Your task to perform on an android device: Add corsair k70 to the cart on bestbuy.com Image 0: 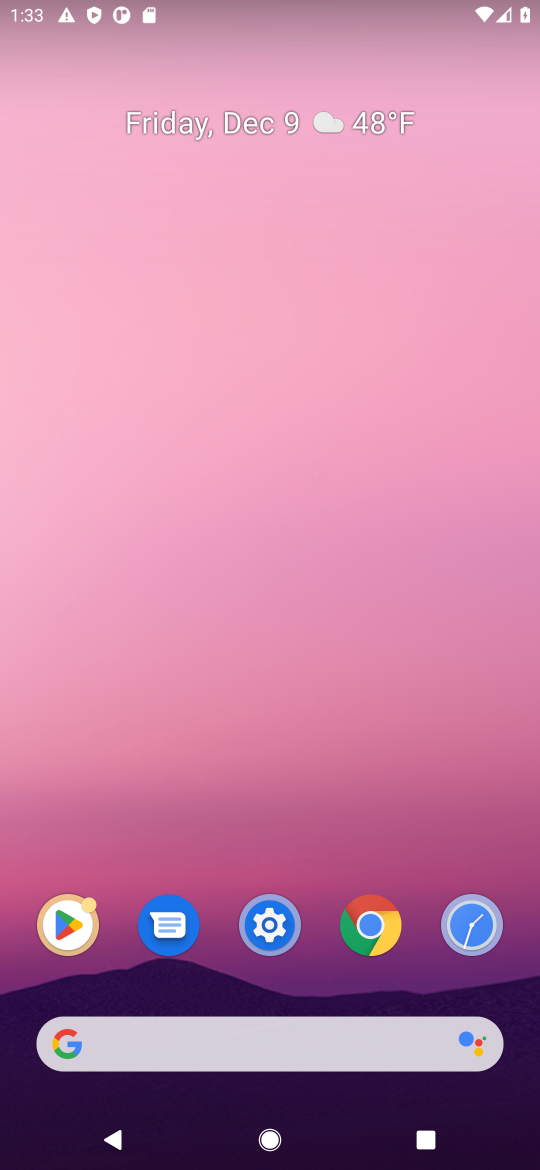
Step 0: click (276, 1037)
Your task to perform on an android device: Add corsair k70 to the cart on bestbuy.com Image 1: 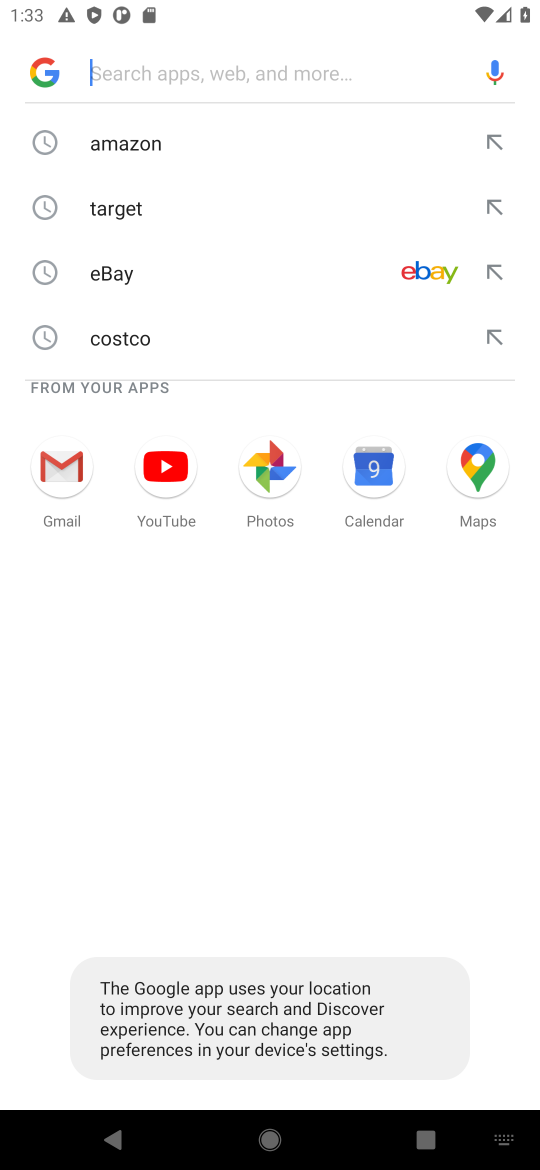
Step 1: type "bestbuy"
Your task to perform on an android device: Add corsair k70 to the cart on bestbuy.com Image 2: 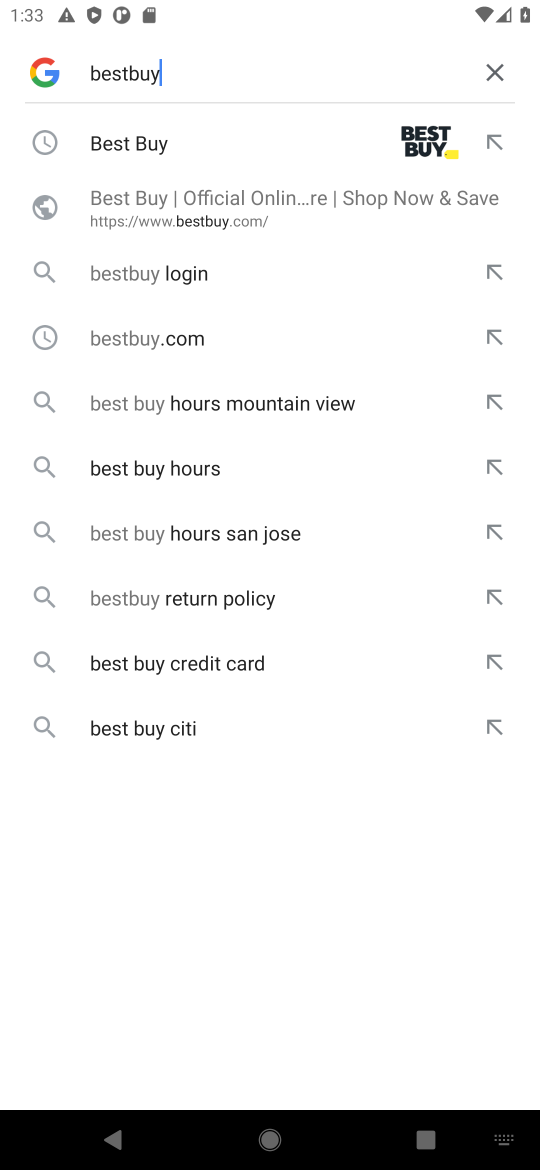
Step 2: click (177, 160)
Your task to perform on an android device: Add corsair k70 to the cart on bestbuy.com Image 3: 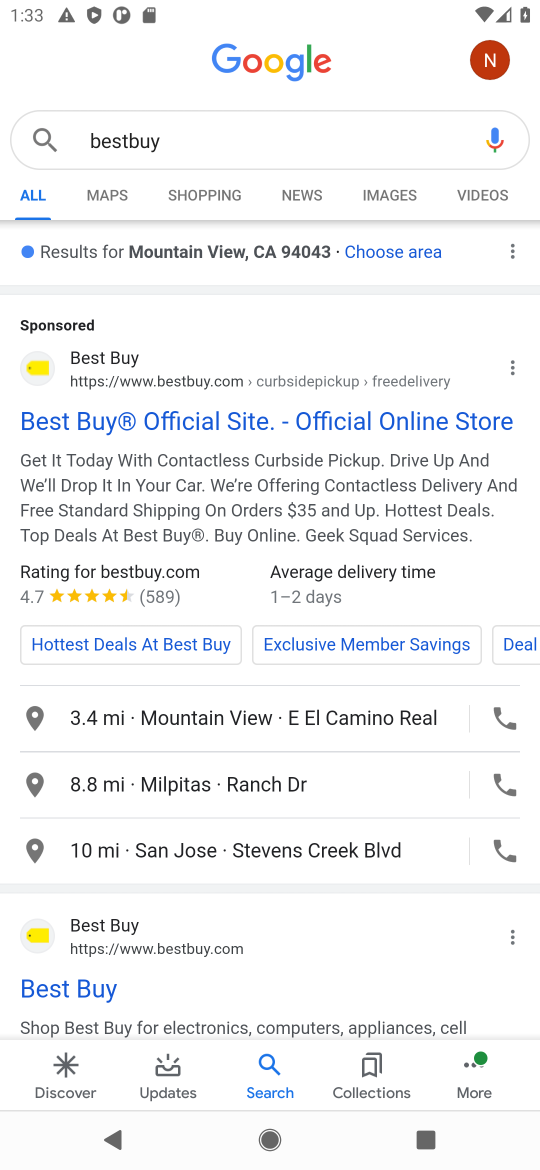
Step 3: click (157, 441)
Your task to perform on an android device: Add corsair k70 to the cart on bestbuy.com Image 4: 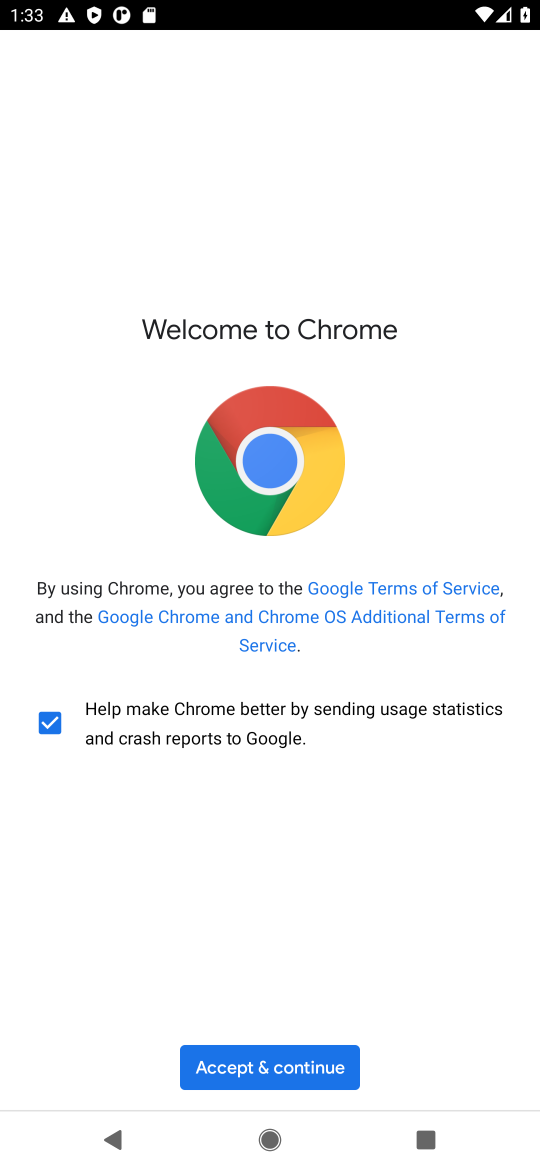
Step 4: click (266, 1039)
Your task to perform on an android device: Add corsair k70 to the cart on bestbuy.com Image 5: 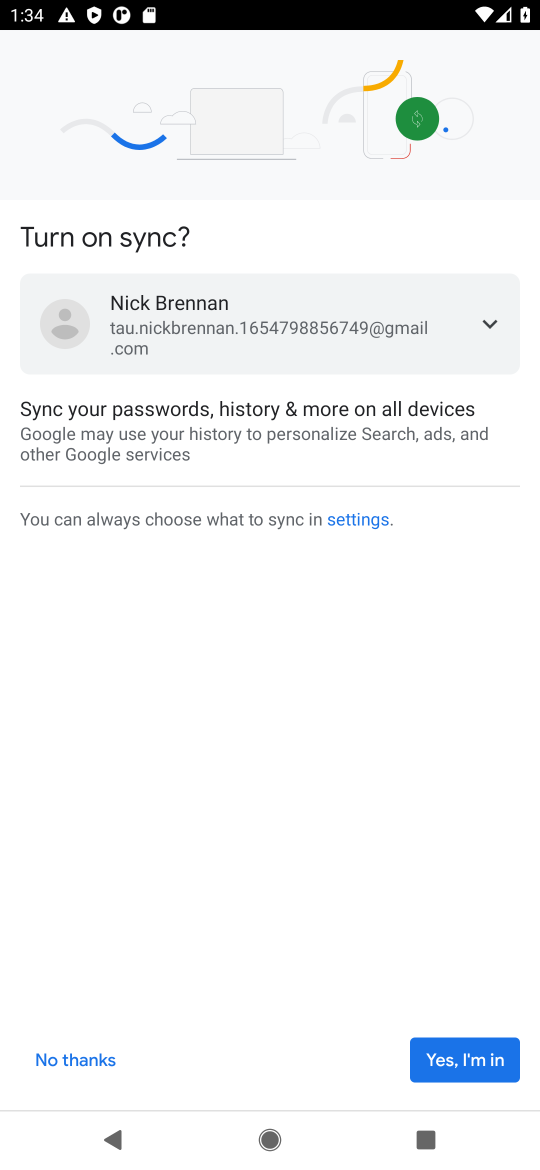
Step 5: click (428, 1060)
Your task to perform on an android device: Add corsair k70 to the cart on bestbuy.com Image 6: 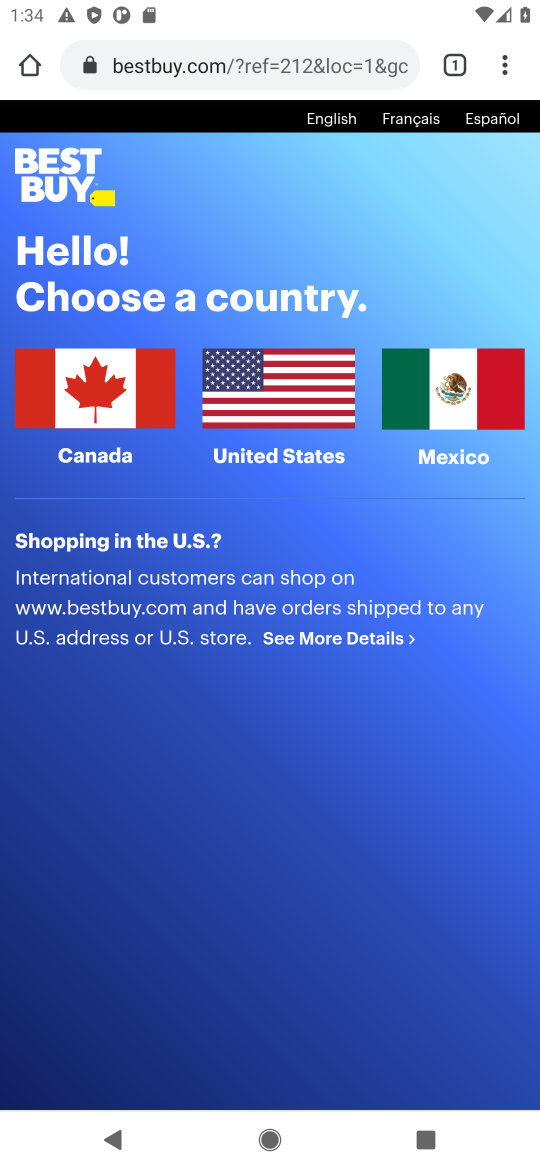
Step 6: click (75, 432)
Your task to perform on an android device: Add corsair k70 to the cart on bestbuy.com Image 7: 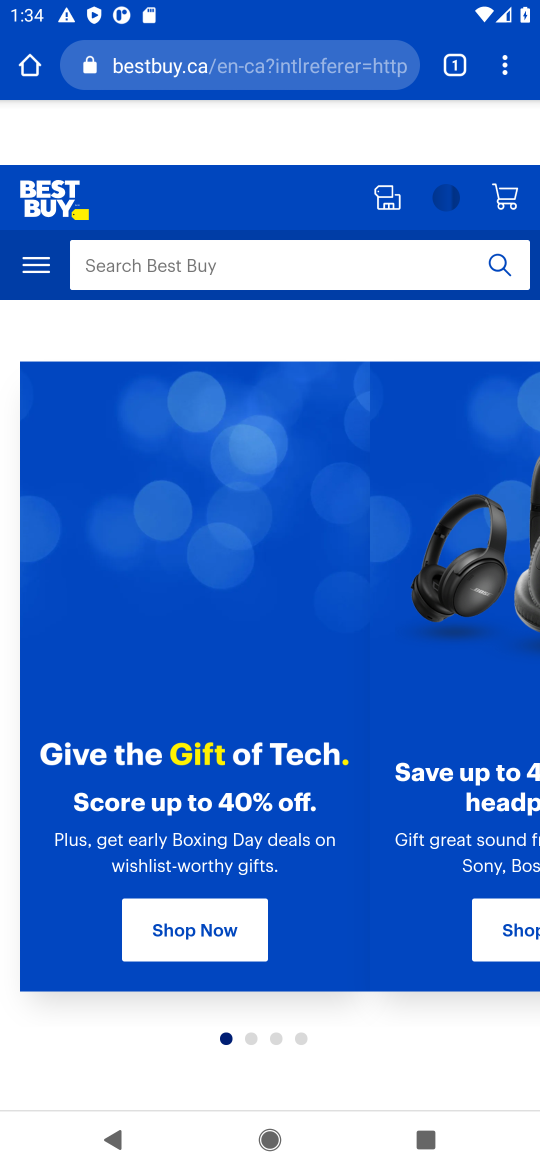
Step 7: click (172, 271)
Your task to perform on an android device: Add corsair k70 to the cart on bestbuy.com Image 8: 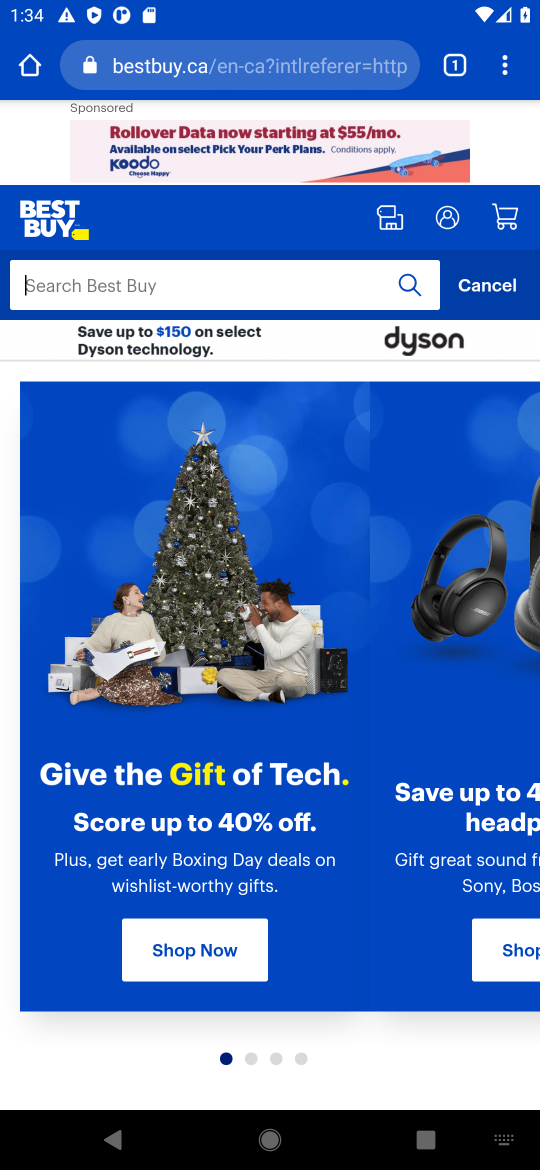
Step 8: type "corsair k70"
Your task to perform on an android device: Add corsair k70 to the cart on bestbuy.com Image 9: 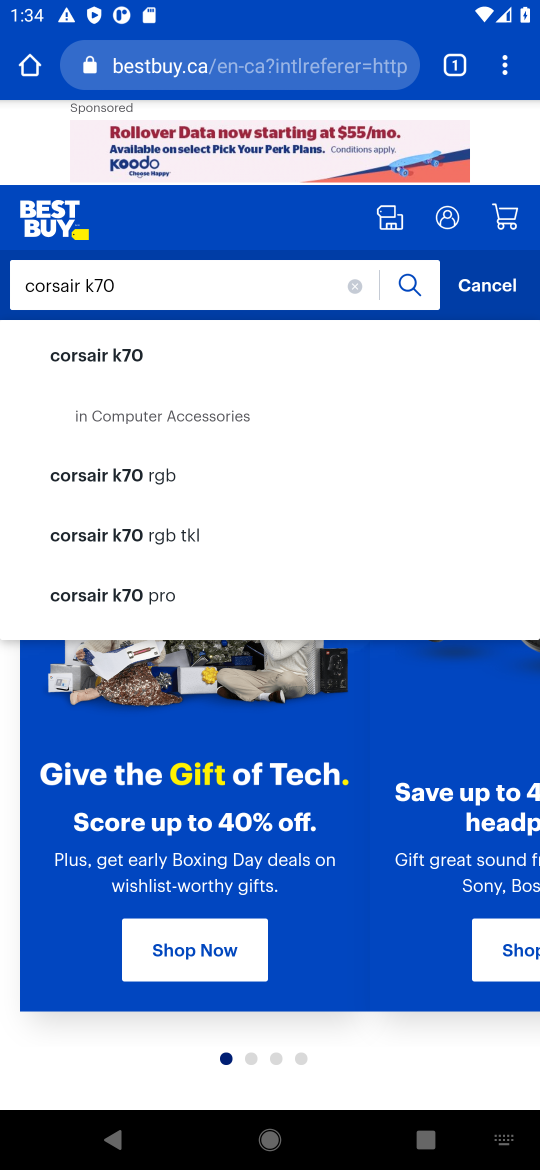
Step 9: click (143, 362)
Your task to perform on an android device: Add corsair k70 to the cart on bestbuy.com Image 10: 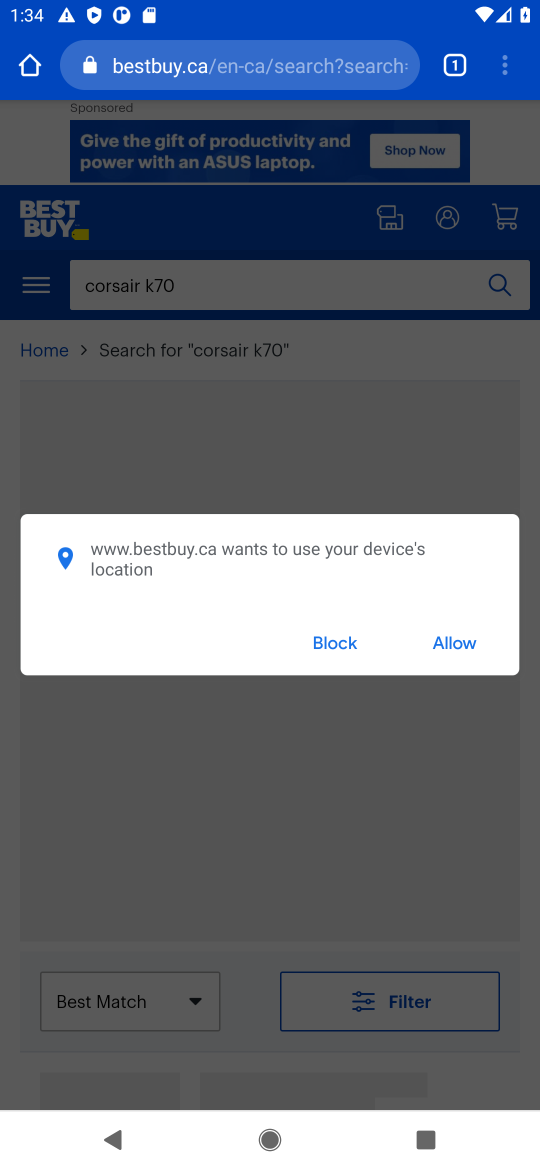
Step 10: click (302, 653)
Your task to perform on an android device: Add corsair k70 to the cart on bestbuy.com Image 11: 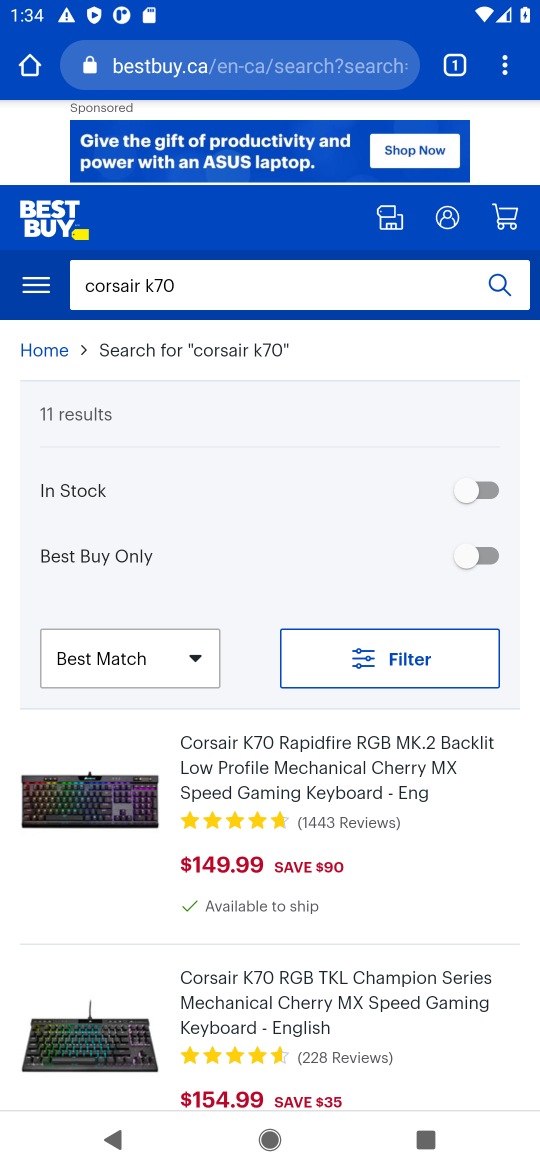
Step 11: click (265, 759)
Your task to perform on an android device: Add corsair k70 to the cart on bestbuy.com Image 12: 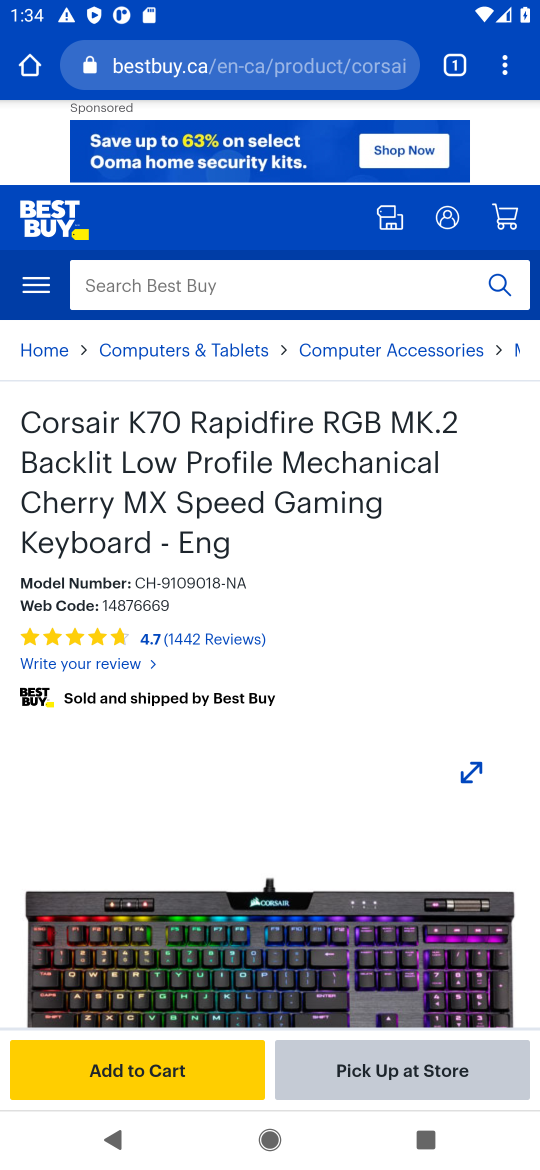
Step 12: click (156, 1068)
Your task to perform on an android device: Add corsair k70 to the cart on bestbuy.com Image 13: 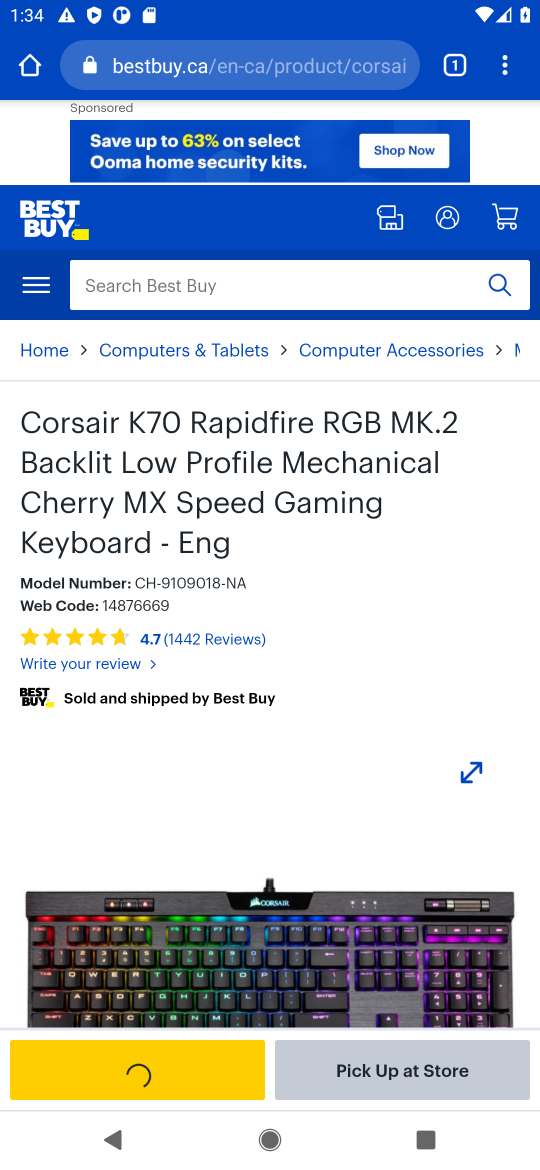
Step 13: task complete